Your task to perform on an android device: toggle translation in the chrome app Image 0: 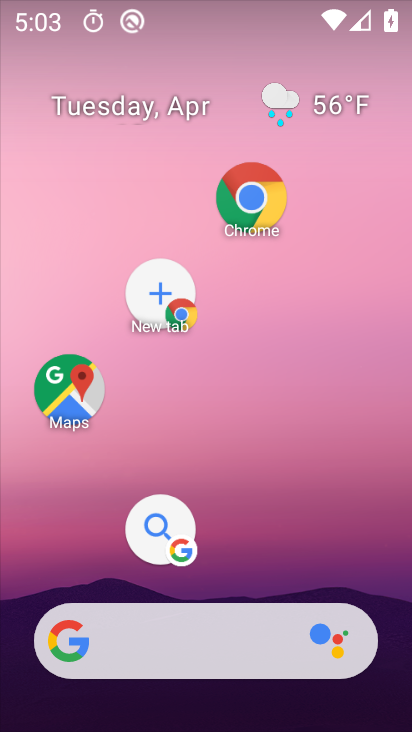
Step 0: click (246, 204)
Your task to perform on an android device: toggle translation in the chrome app Image 1: 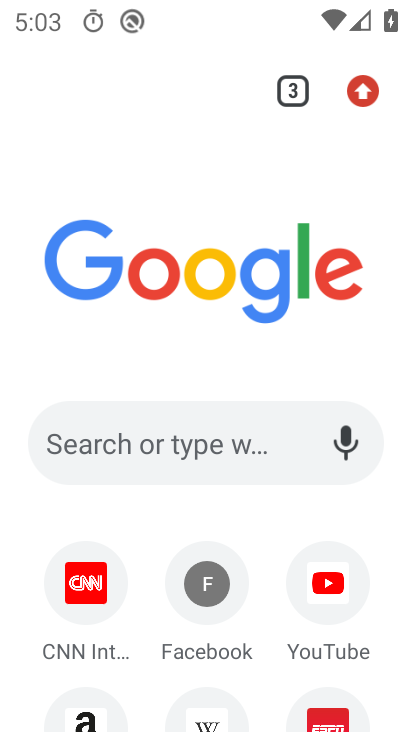
Step 1: click (364, 95)
Your task to perform on an android device: toggle translation in the chrome app Image 2: 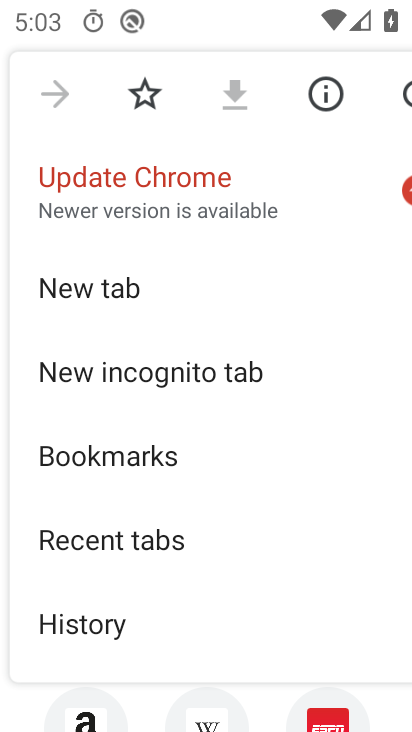
Step 2: drag from (69, 566) to (187, 546)
Your task to perform on an android device: toggle translation in the chrome app Image 3: 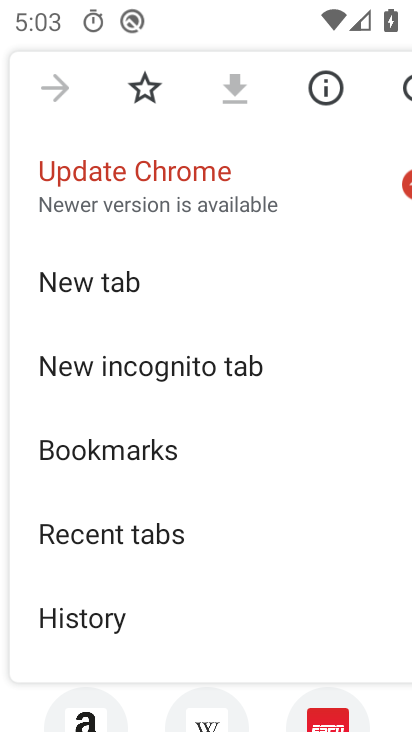
Step 3: drag from (100, 631) to (131, 404)
Your task to perform on an android device: toggle translation in the chrome app Image 4: 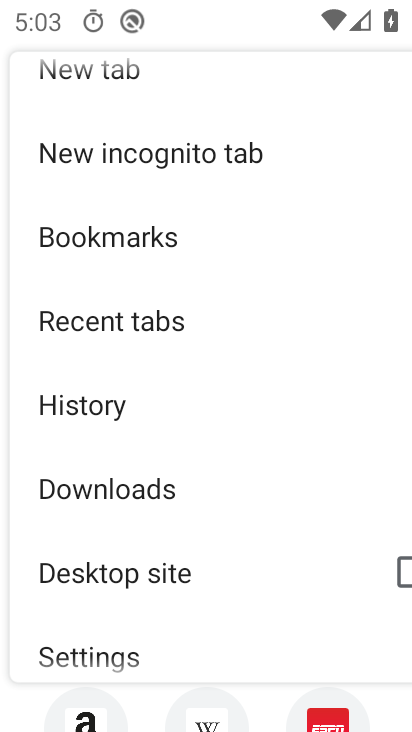
Step 4: click (61, 660)
Your task to perform on an android device: toggle translation in the chrome app Image 5: 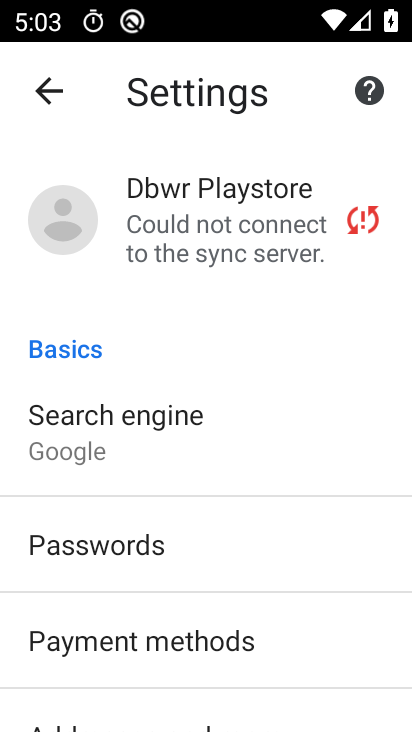
Step 5: drag from (133, 678) to (172, 337)
Your task to perform on an android device: toggle translation in the chrome app Image 6: 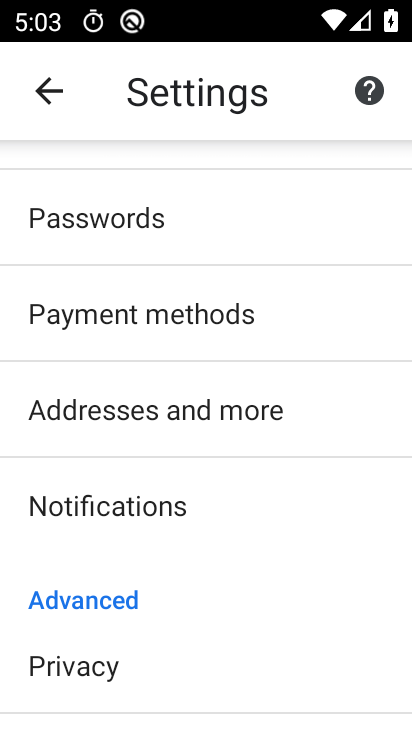
Step 6: drag from (155, 666) to (160, 272)
Your task to perform on an android device: toggle translation in the chrome app Image 7: 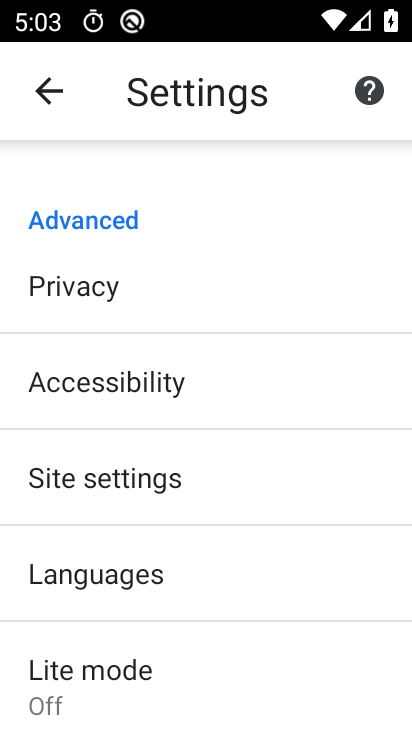
Step 7: click (126, 581)
Your task to perform on an android device: toggle translation in the chrome app Image 8: 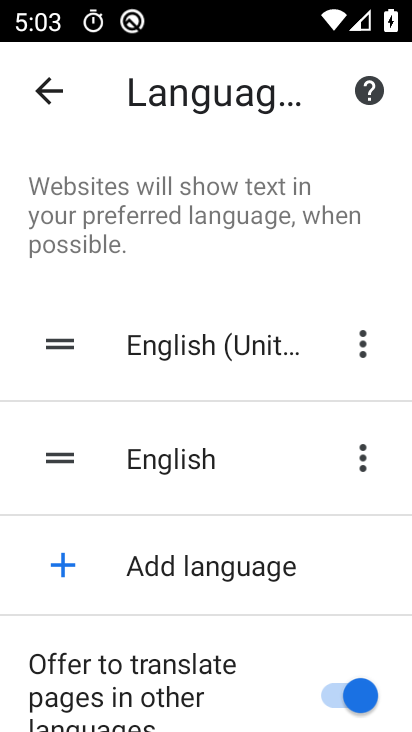
Step 8: click (325, 693)
Your task to perform on an android device: toggle translation in the chrome app Image 9: 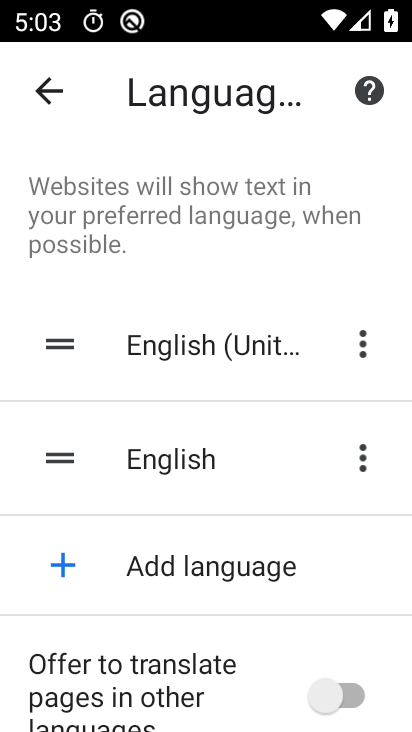
Step 9: task complete